Your task to perform on an android device: Go to Google maps Image 0: 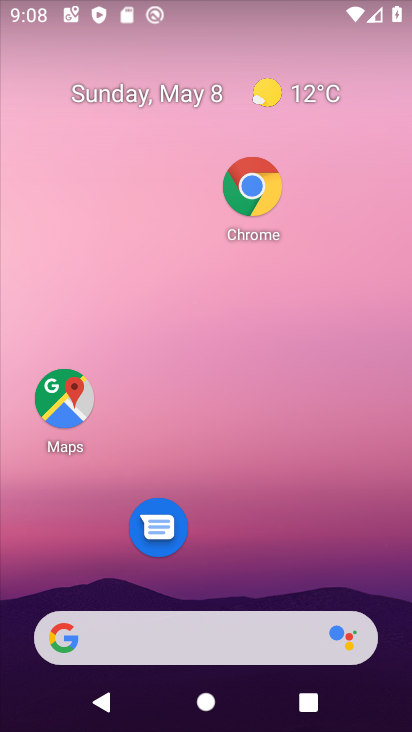
Step 0: drag from (291, 489) to (305, 366)
Your task to perform on an android device: Go to Google maps Image 1: 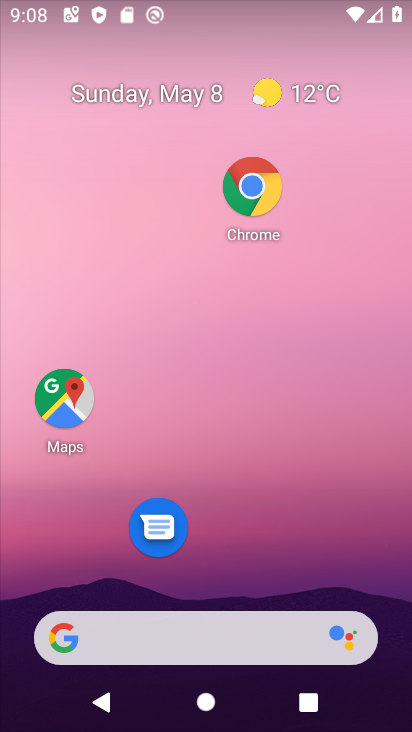
Step 1: click (57, 404)
Your task to perform on an android device: Go to Google maps Image 2: 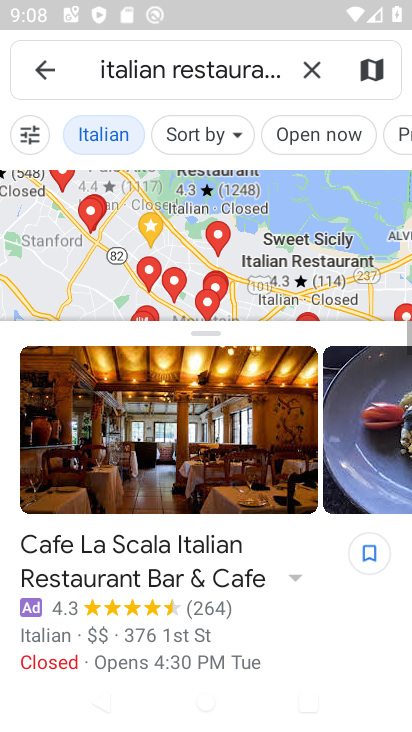
Step 2: click (311, 65)
Your task to perform on an android device: Go to Google maps Image 3: 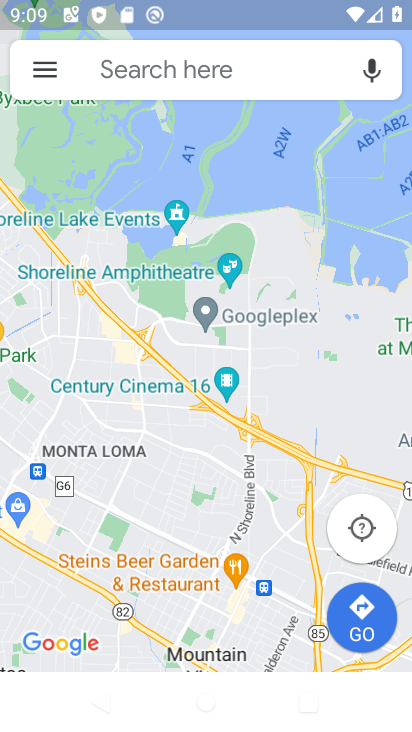
Step 3: task complete